Your task to perform on an android device: toggle javascript in the chrome app Image 0: 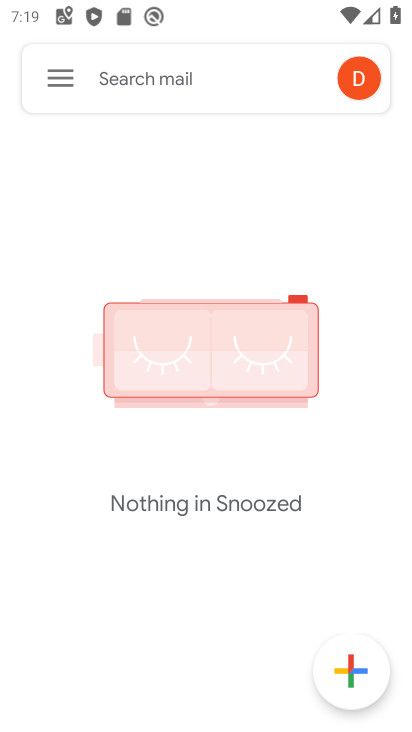
Step 0: press home button
Your task to perform on an android device: toggle javascript in the chrome app Image 1: 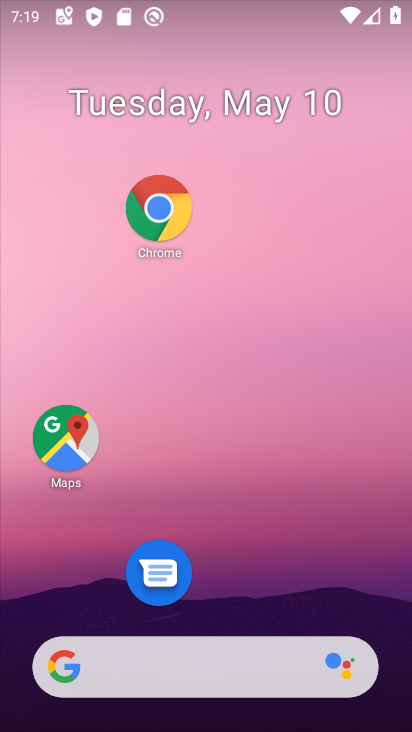
Step 1: drag from (269, 699) to (238, 323)
Your task to perform on an android device: toggle javascript in the chrome app Image 2: 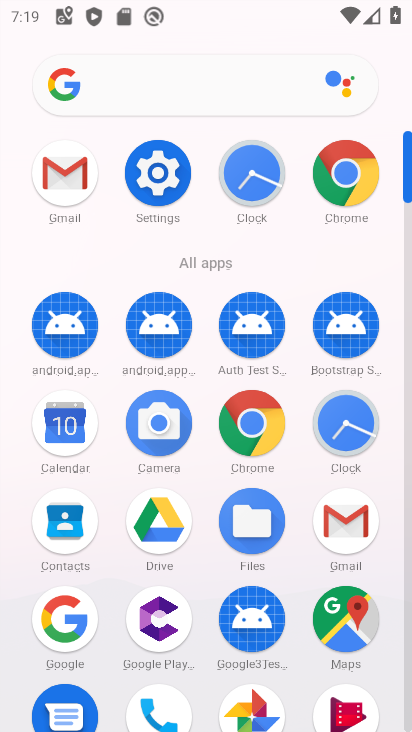
Step 2: click (358, 190)
Your task to perform on an android device: toggle javascript in the chrome app Image 3: 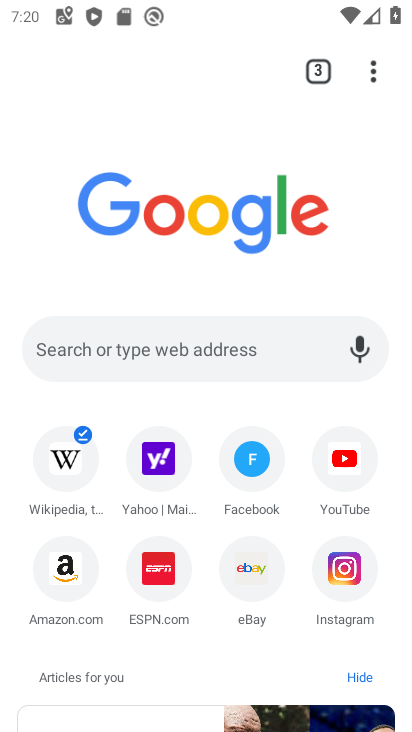
Step 3: click (376, 84)
Your task to perform on an android device: toggle javascript in the chrome app Image 4: 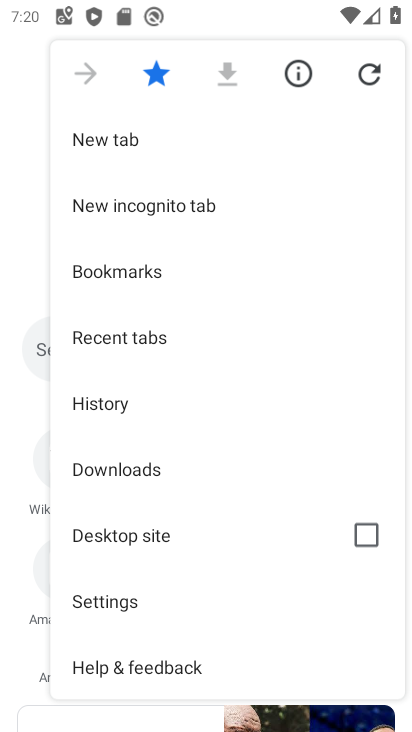
Step 4: click (108, 603)
Your task to perform on an android device: toggle javascript in the chrome app Image 5: 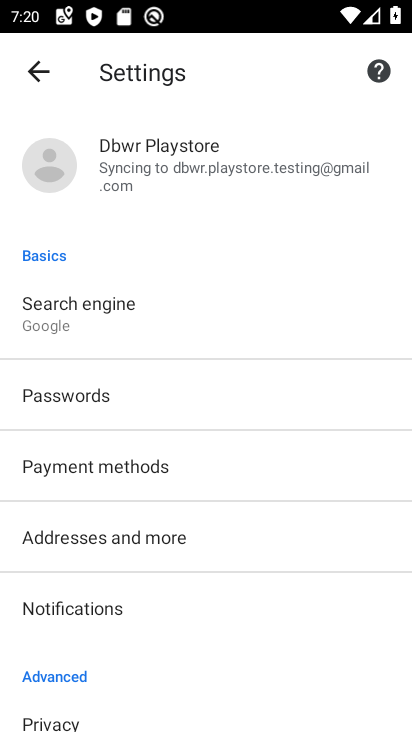
Step 5: drag from (112, 643) to (220, 378)
Your task to perform on an android device: toggle javascript in the chrome app Image 6: 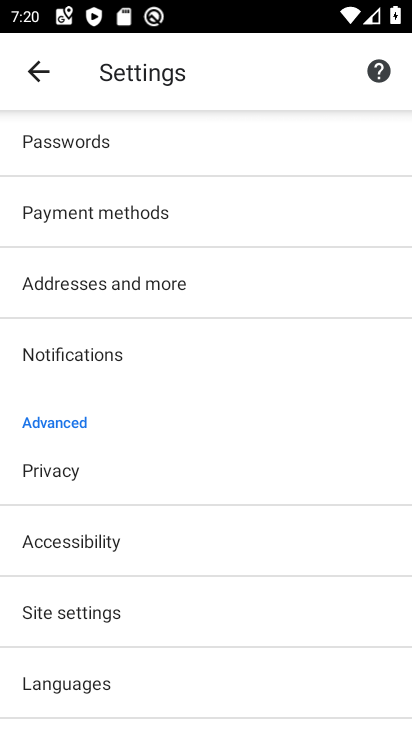
Step 6: click (124, 618)
Your task to perform on an android device: toggle javascript in the chrome app Image 7: 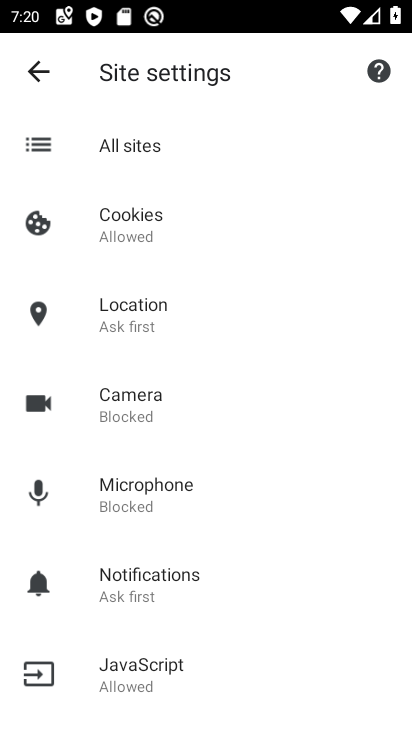
Step 7: click (126, 666)
Your task to perform on an android device: toggle javascript in the chrome app Image 8: 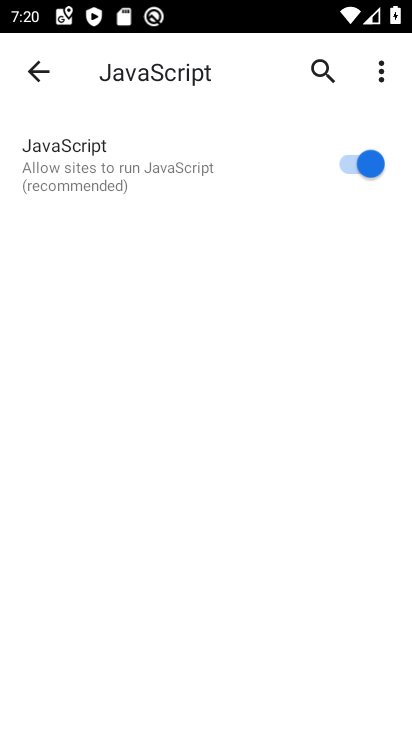
Step 8: task complete